Your task to perform on an android device: see tabs open on other devices in the chrome app Image 0: 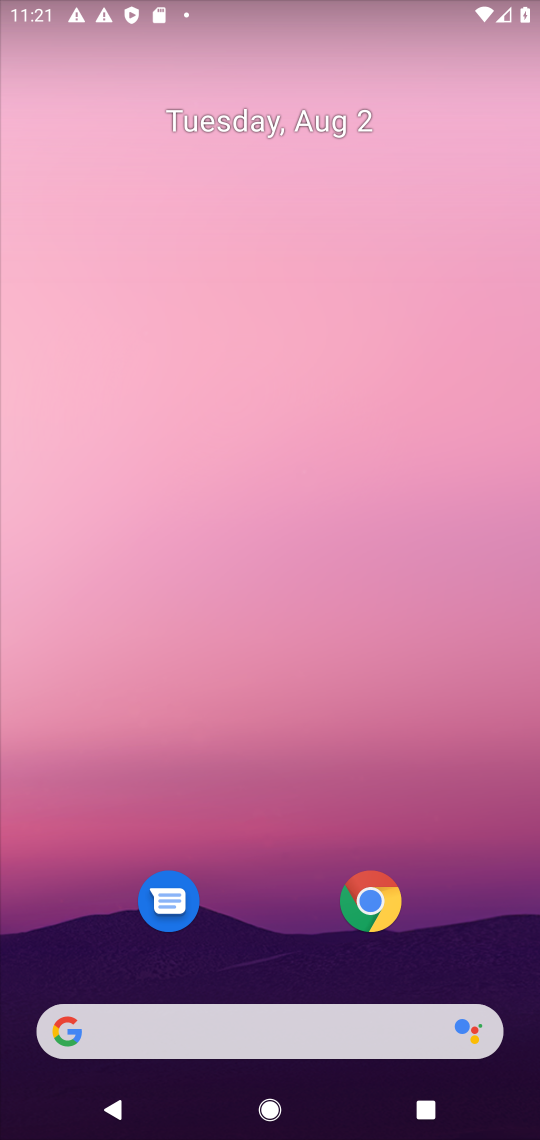
Step 0: click (378, 904)
Your task to perform on an android device: see tabs open on other devices in the chrome app Image 1: 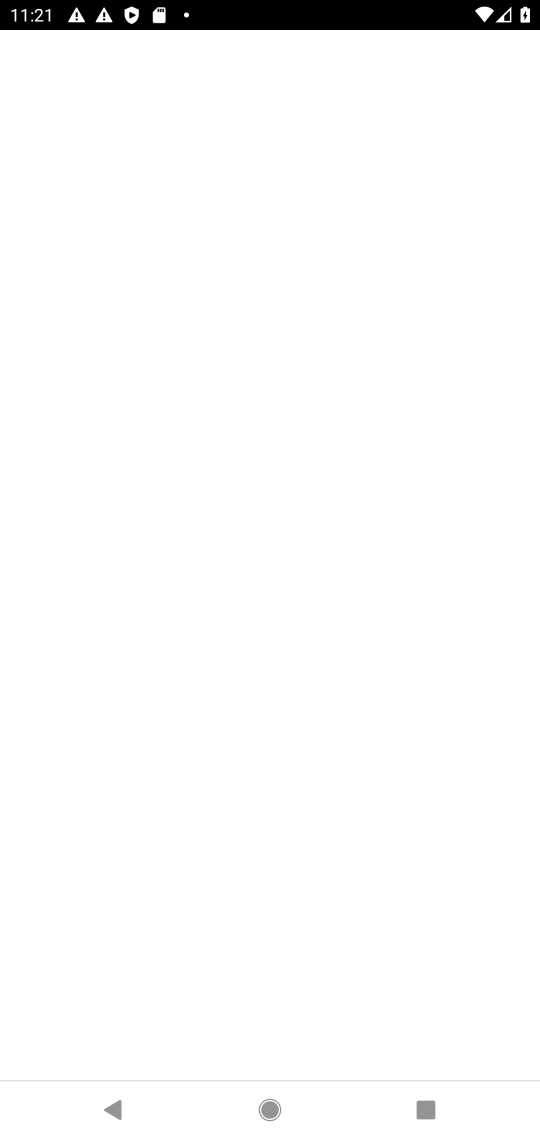
Step 1: task complete